Your task to perform on an android device: turn off javascript in the chrome app Image 0: 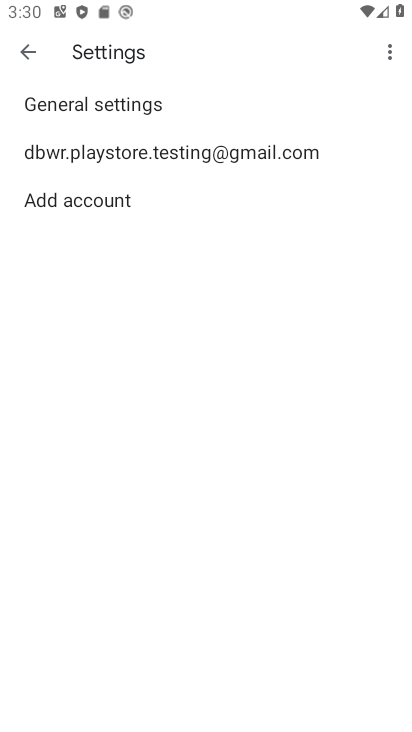
Step 0: click (27, 50)
Your task to perform on an android device: turn off javascript in the chrome app Image 1: 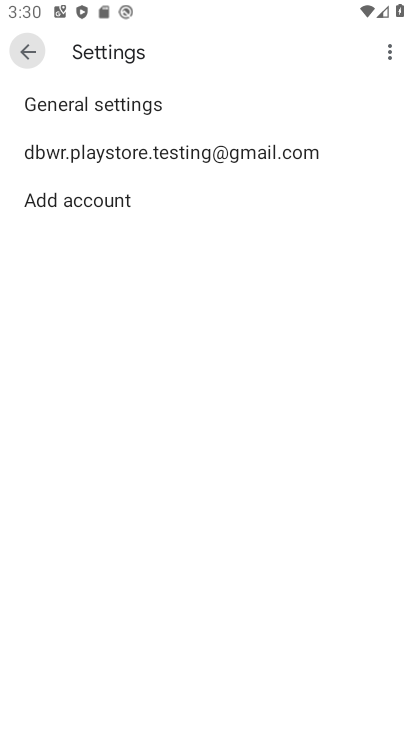
Step 1: click (27, 50)
Your task to perform on an android device: turn off javascript in the chrome app Image 2: 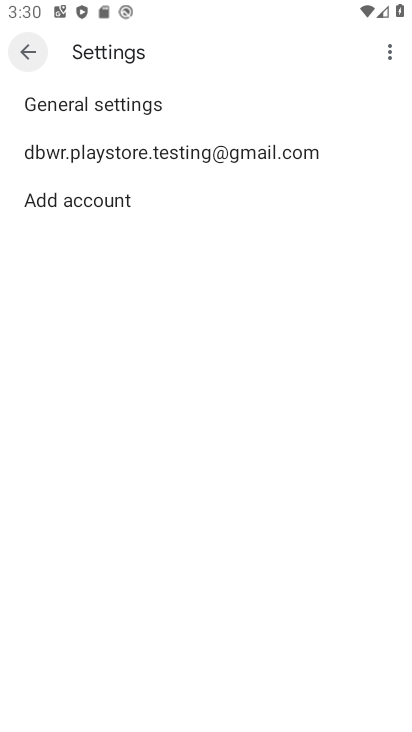
Step 2: click (27, 53)
Your task to perform on an android device: turn off javascript in the chrome app Image 3: 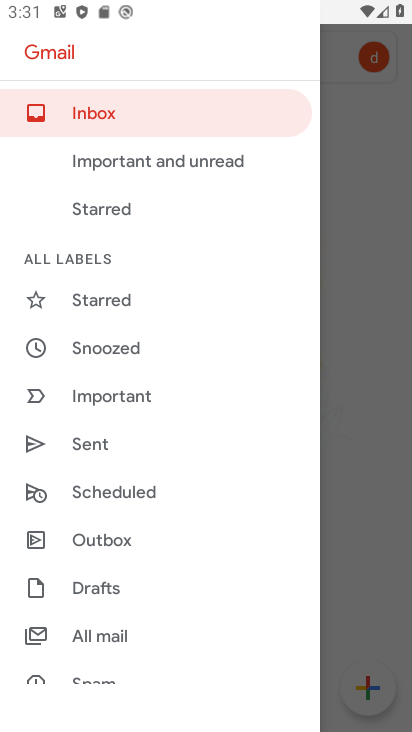
Step 3: press back button
Your task to perform on an android device: turn off javascript in the chrome app Image 4: 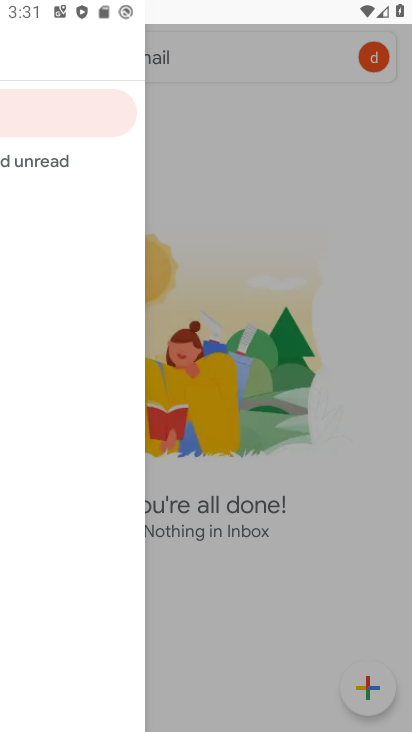
Step 4: press back button
Your task to perform on an android device: turn off javascript in the chrome app Image 5: 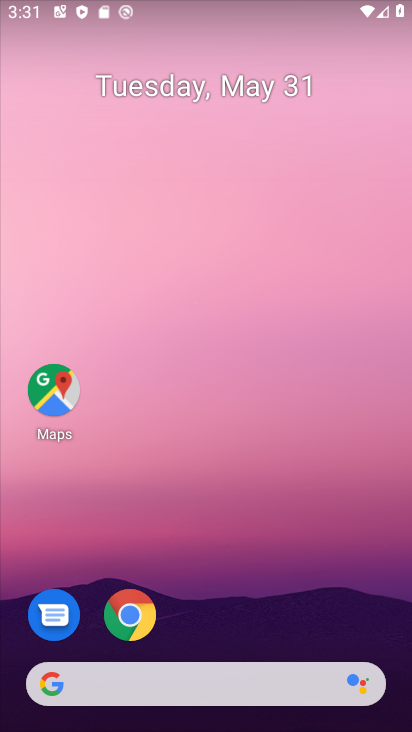
Step 5: drag from (249, 705) to (130, 69)
Your task to perform on an android device: turn off javascript in the chrome app Image 6: 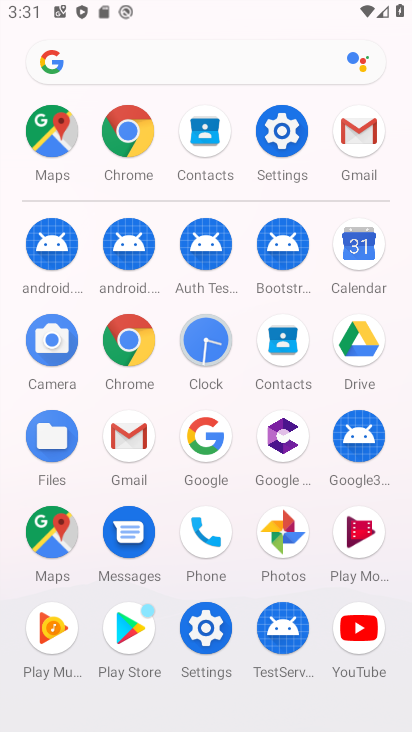
Step 6: click (116, 336)
Your task to perform on an android device: turn off javascript in the chrome app Image 7: 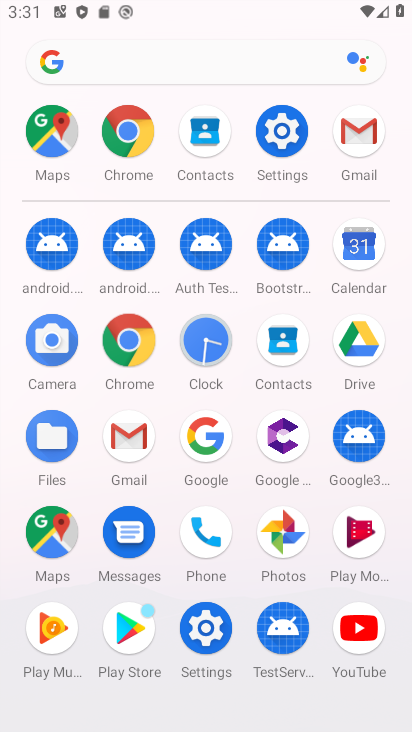
Step 7: click (118, 336)
Your task to perform on an android device: turn off javascript in the chrome app Image 8: 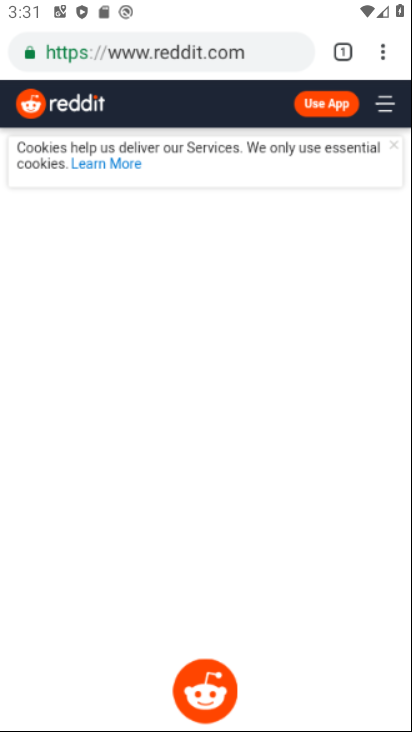
Step 8: click (130, 345)
Your task to perform on an android device: turn off javascript in the chrome app Image 9: 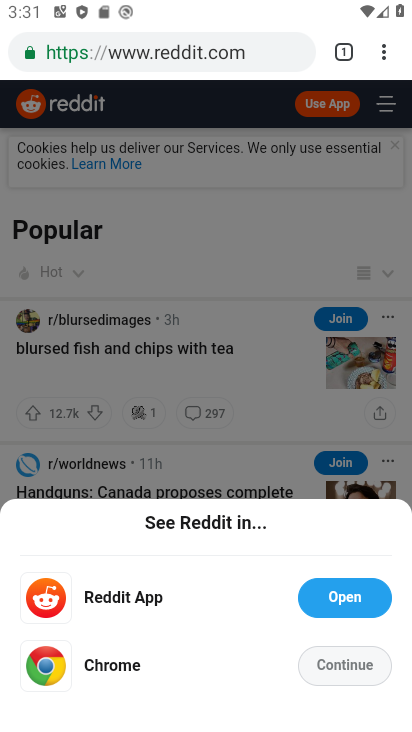
Step 9: drag from (382, 55) to (193, 635)
Your task to perform on an android device: turn off javascript in the chrome app Image 10: 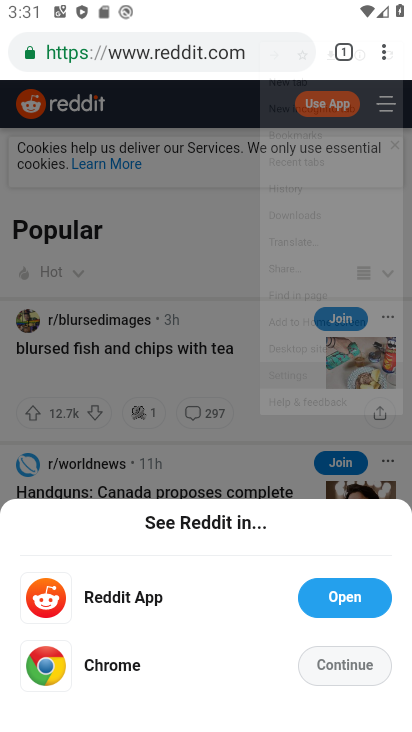
Step 10: click (194, 632)
Your task to perform on an android device: turn off javascript in the chrome app Image 11: 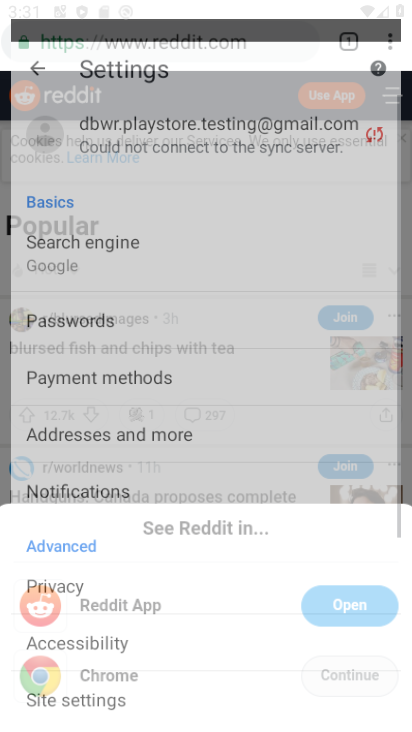
Step 11: click (195, 633)
Your task to perform on an android device: turn off javascript in the chrome app Image 12: 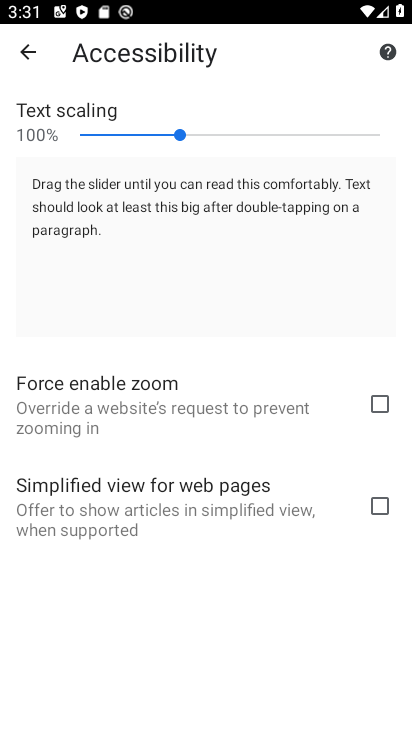
Step 12: click (17, 50)
Your task to perform on an android device: turn off javascript in the chrome app Image 13: 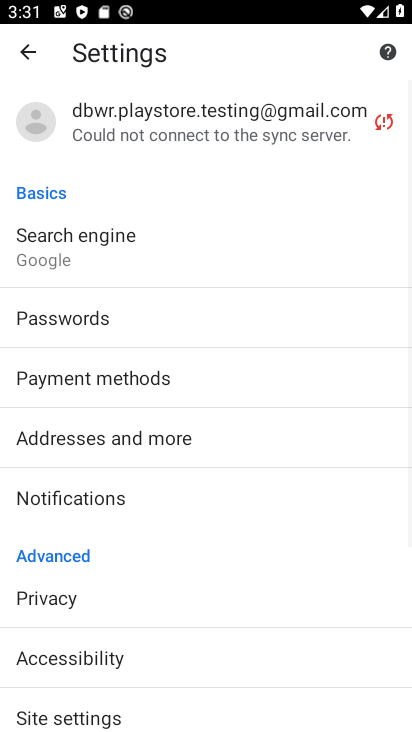
Step 13: drag from (147, 642) to (119, 277)
Your task to perform on an android device: turn off javascript in the chrome app Image 14: 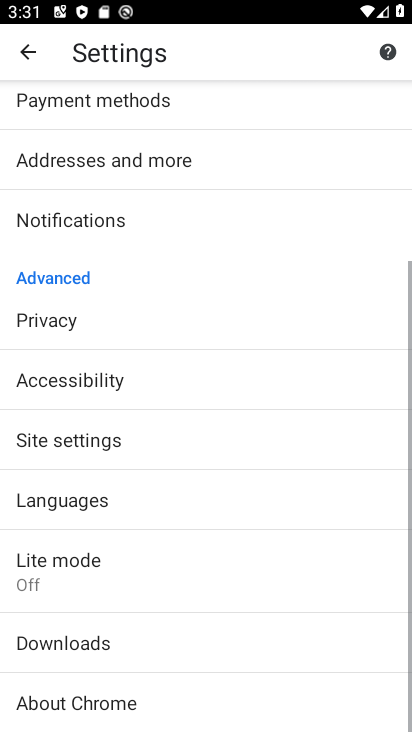
Step 14: drag from (140, 595) to (131, 183)
Your task to perform on an android device: turn off javascript in the chrome app Image 15: 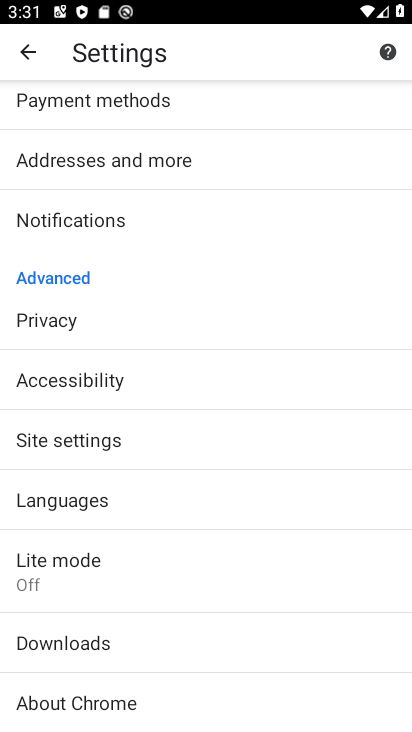
Step 15: click (52, 443)
Your task to perform on an android device: turn off javascript in the chrome app Image 16: 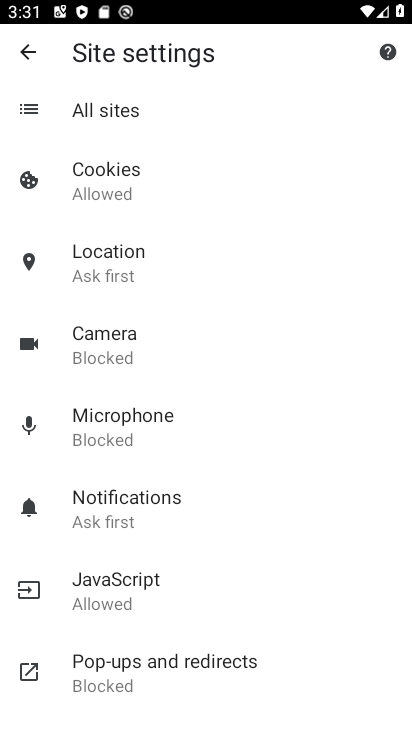
Step 16: click (88, 579)
Your task to perform on an android device: turn off javascript in the chrome app Image 17: 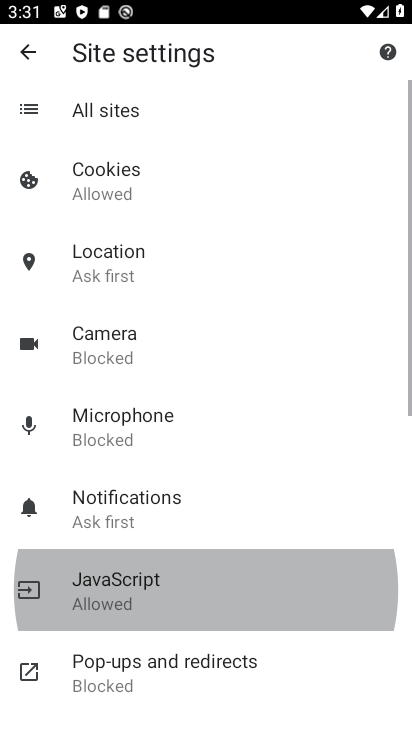
Step 17: click (91, 582)
Your task to perform on an android device: turn off javascript in the chrome app Image 18: 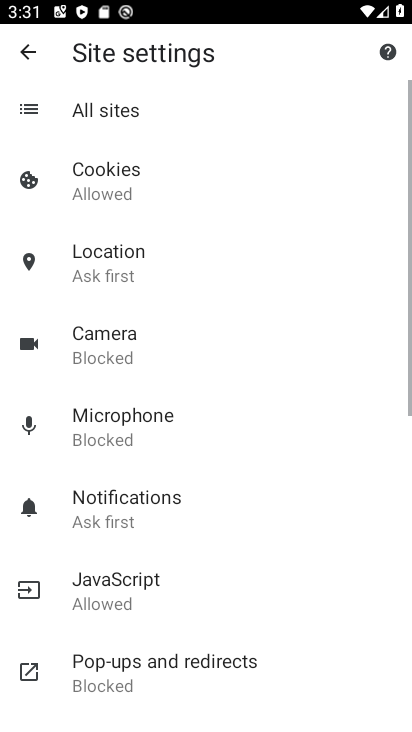
Step 18: click (91, 588)
Your task to perform on an android device: turn off javascript in the chrome app Image 19: 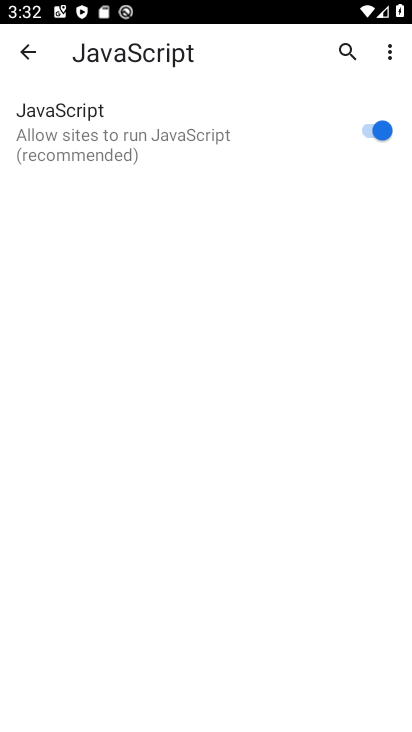
Step 19: click (379, 129)
Your task to perform on an android device: turn off javascript in the chrome app Image 20: 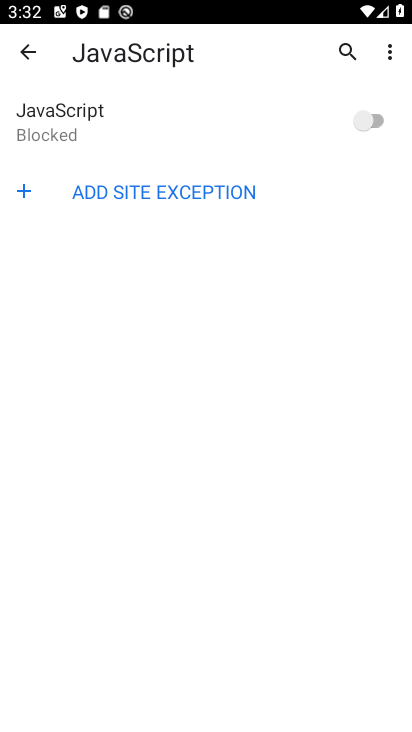
Step 20: task complete